Your task to perform on an android device: Go to Maps Image 0: 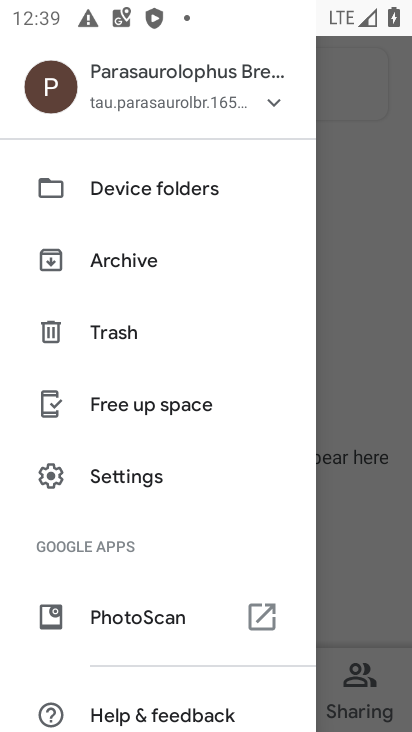
Step 0: press home button
Your task to perform on an android device: Go to Maps Image 1: 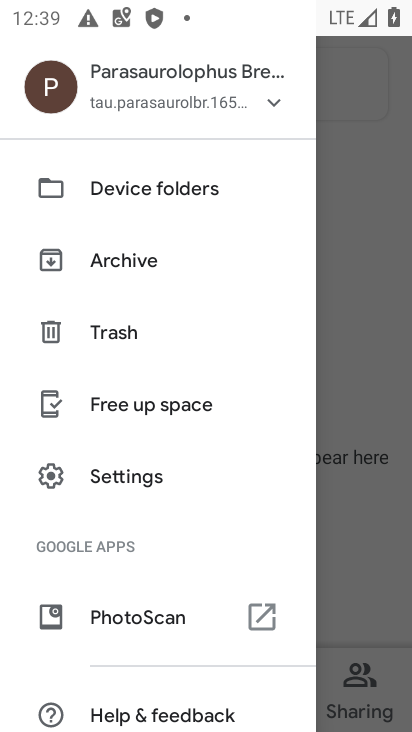
Step 1: press home button
Your task to perform on an android device: Go to Maps Image 2: 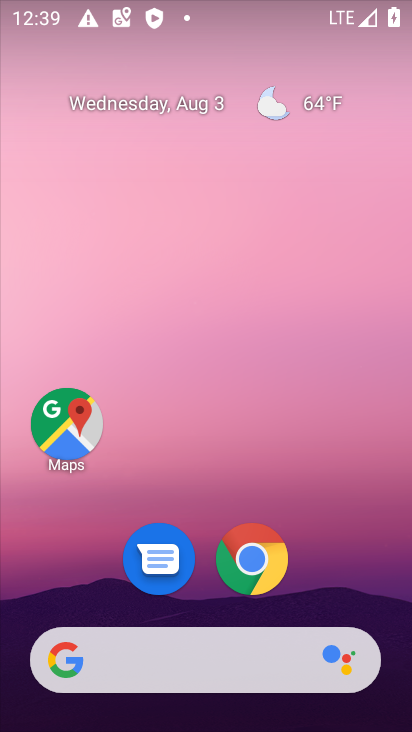
Step 2: click (62, 424)
Your task to perform on an android device: Go to Maps Image 3: 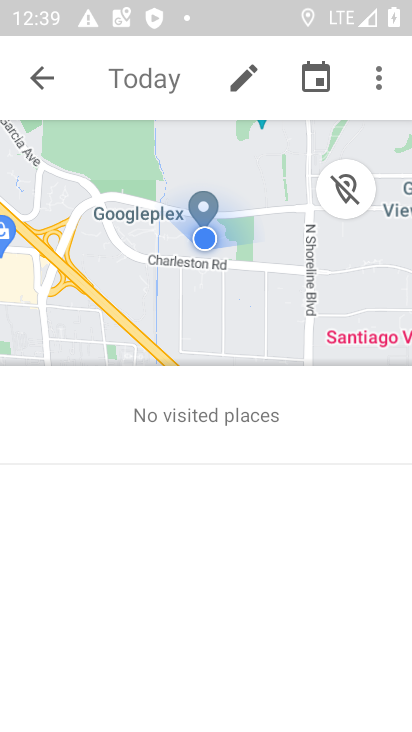
Step 3: click (45, 74)
Your task to perform on an android device: Go to Maps Image 4: 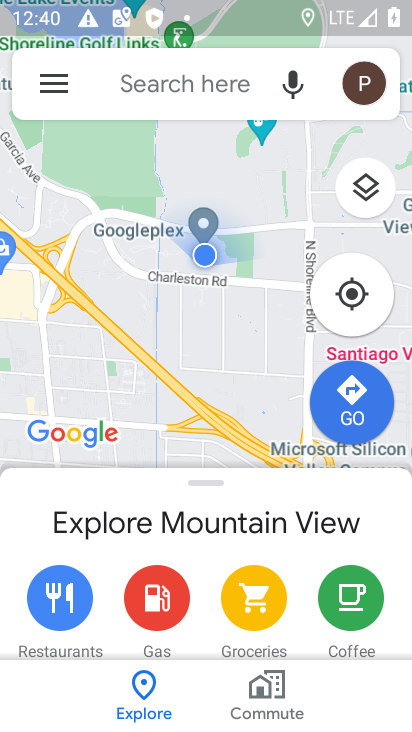
Step 4: task complete